Your task to perform on an android device: Open CNN.com Image 0: 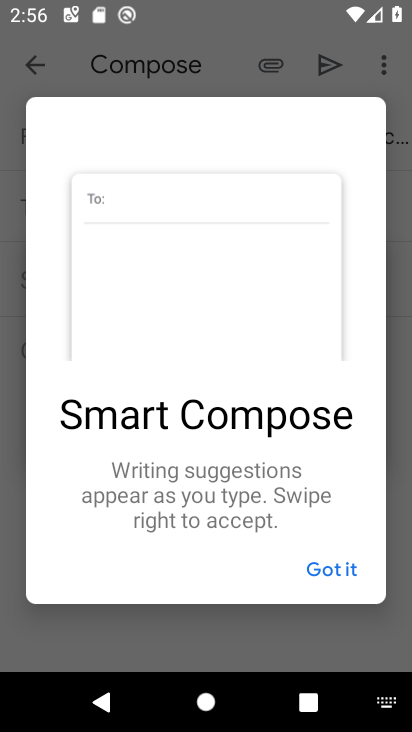
Step 0: press home button
Your task to perform on an android device: Open CNN.com Image 1: 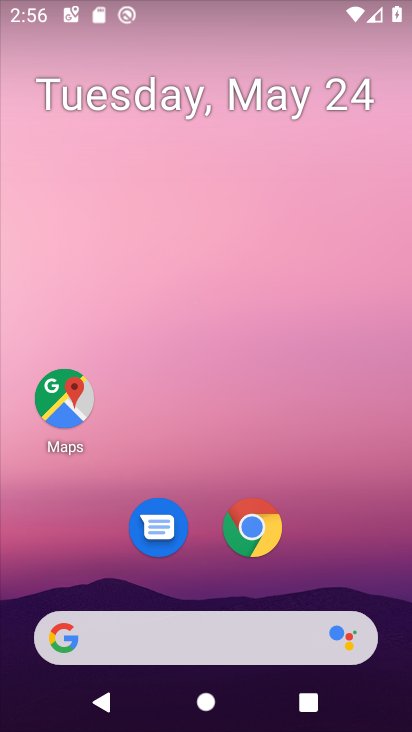
Step 1: click (249, 536)
Your task to perform on an android device: Open CNN.com Image 2: 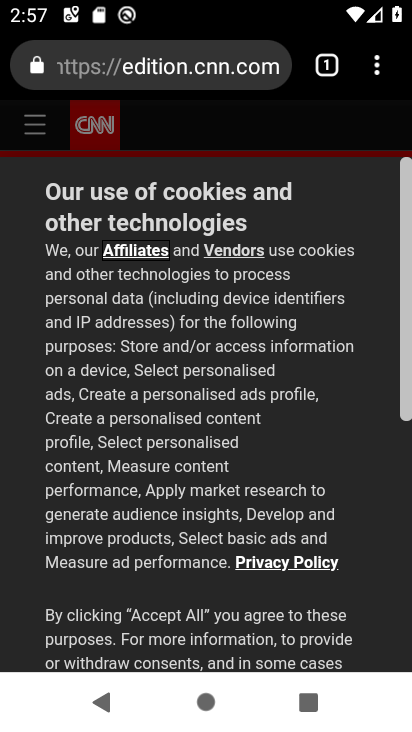
Step 2: click (117, 73)
Your task to perform on an android device: Open CNN.com Image 3: 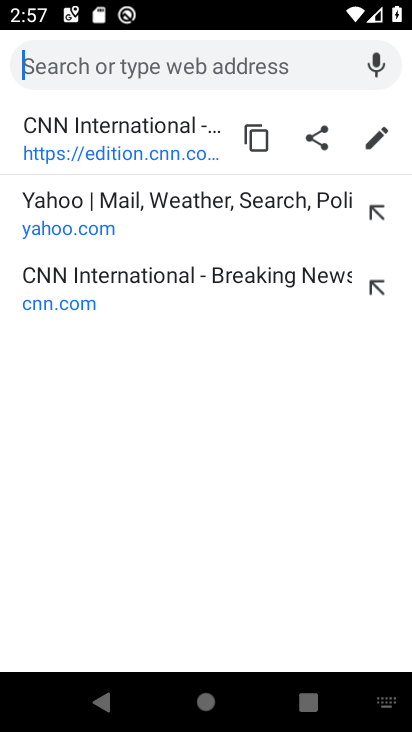
Step 3: click (52, 275)
Your task to perform on an android device: Open CNN.com Image 4: 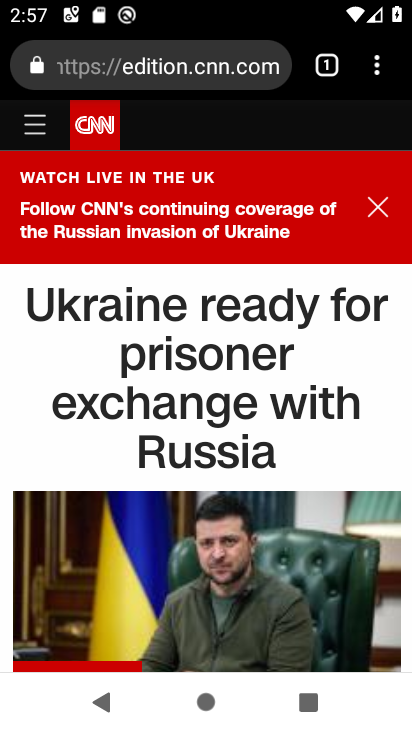
Step 4: task complete